Your task to perform on an android device: Open the Play Movies app and select the watchlist tab. Image 0: 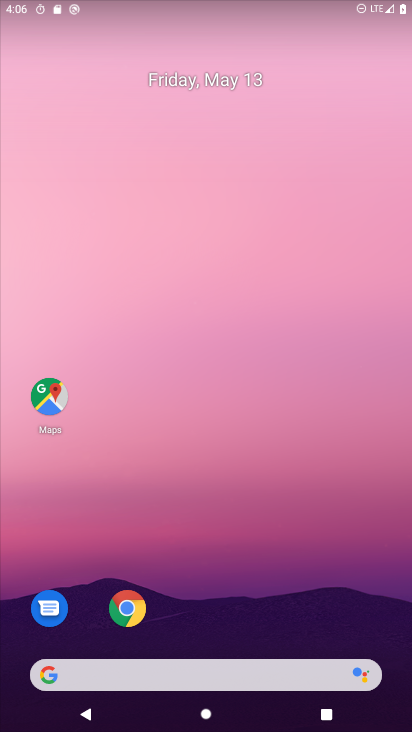
Step 0: press home button
Your task to perform on an android device: Open the Play Movies app and select the watchlist tab. Image 1: 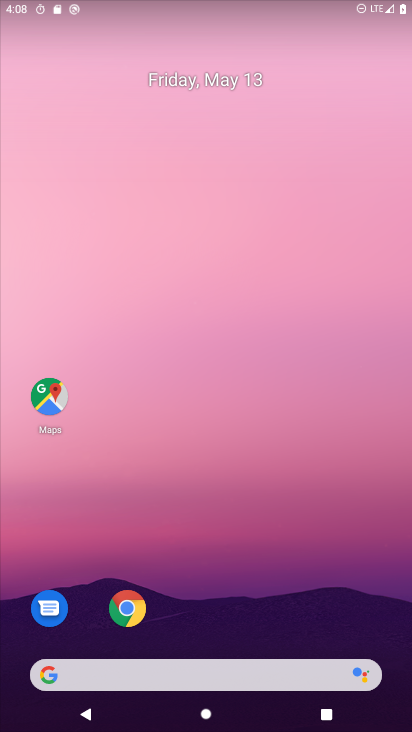
Step 1: drag from (225, 622) to (249, 76)
Your task to perform on an android device: Open the Play Movies app and select the watchlist tab. Image 2: 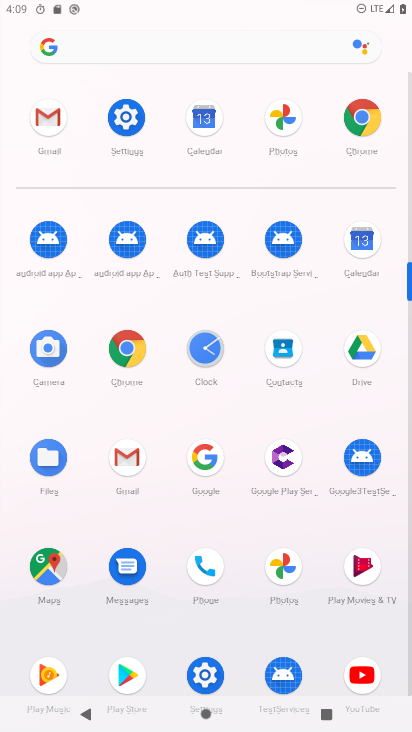
Step 2: click (371, 569)
Your task to perform on an android device: Open the Play Movies app and select the watchlist tab. Image 3: 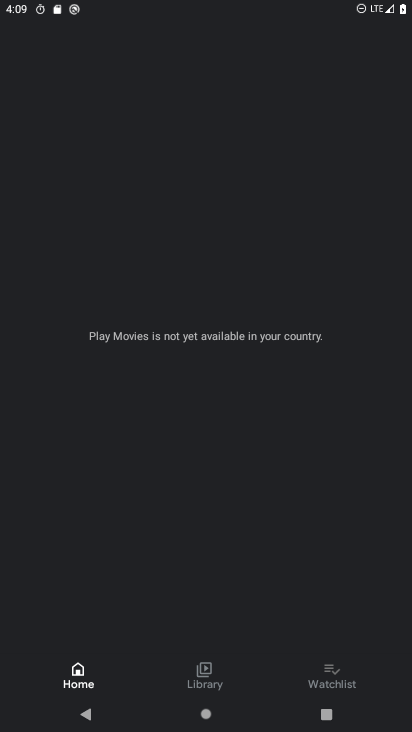
Step 3: click (339, 678)
Your task to perform on an android device: Open the Play Movies app and select the watchlist tab. Image 4: 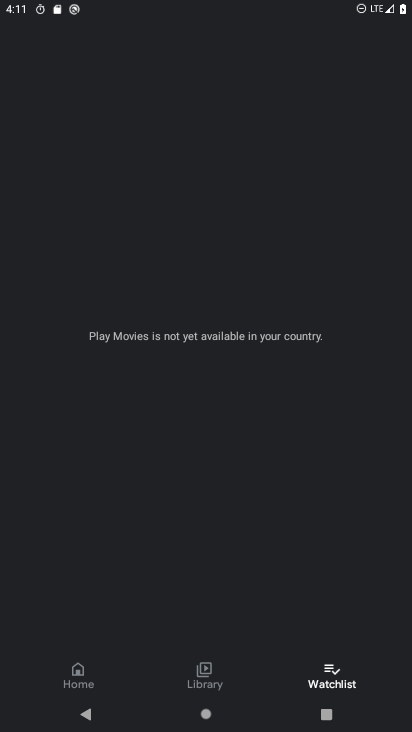
Step 4: task complete